Your task to perform on an android device: create a new album in the google photos Image 0: 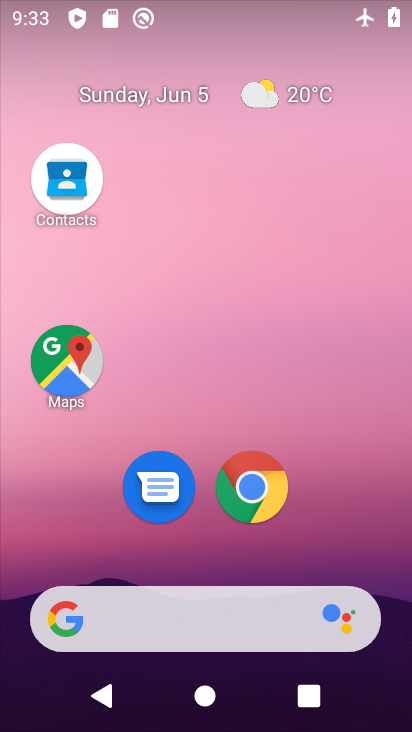
Step 0: drag from (202, 596) to (322, 159)
Your task to perform on an android device: create a new album in the google photos Image 1: 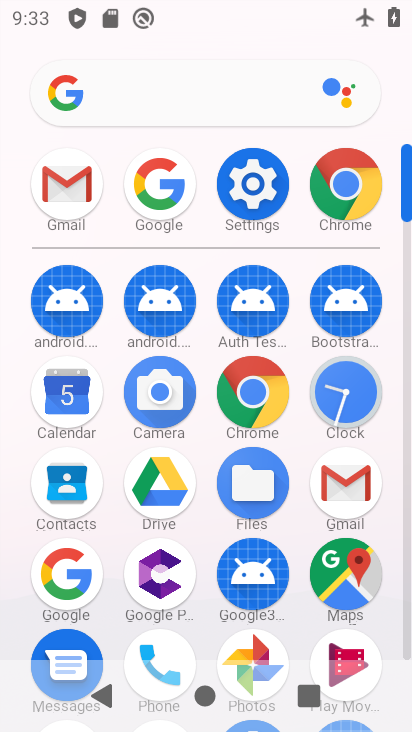
Step 1: drag from (195, 512) to (266, 300)
Your task to perform on an android device: create a new album in the google photos Image 2: 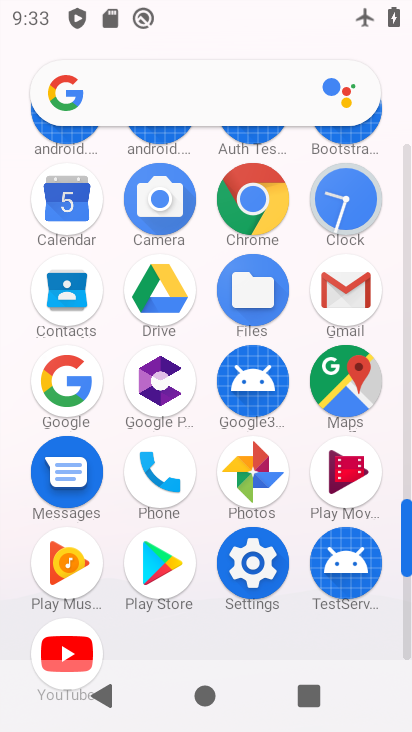
Step 2: click (266, 479)
Your task to perform on an android device: create a new album in the google photos Image 3: 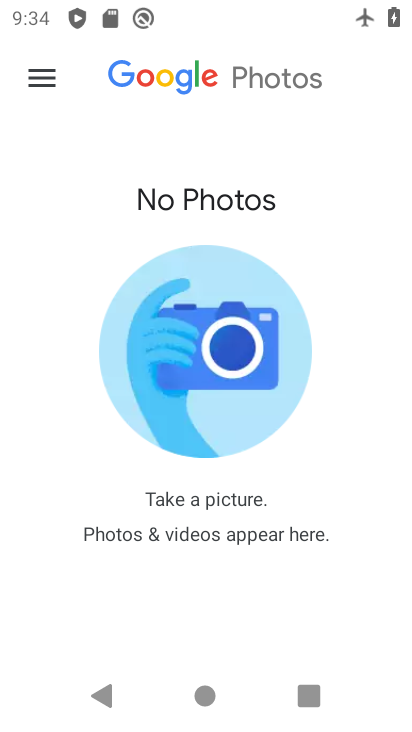
Step 3: click (45, 79)
Your task to perform on an android device: create a new album in the google photos Image 4: 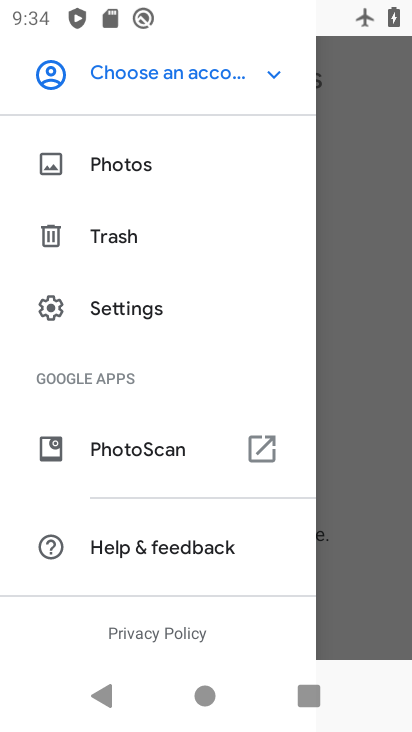
Step 4: click (399, 291)
Your task to perform on an android device: create a new album in the google photos Image 5: 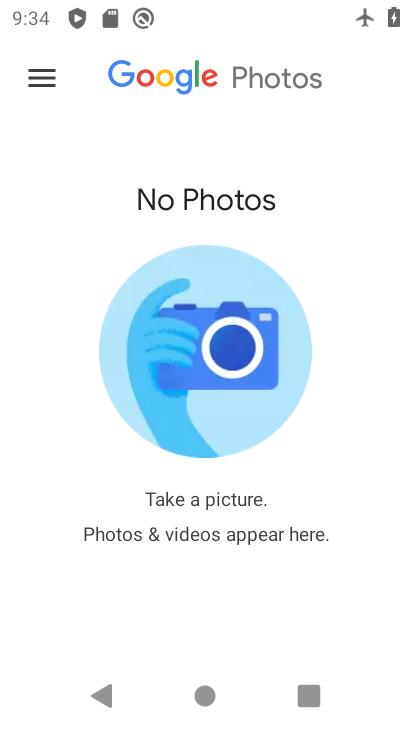
Step 5: click (38, 74)
Your task to perform on an android device: create a new album in the google photos Image 6: 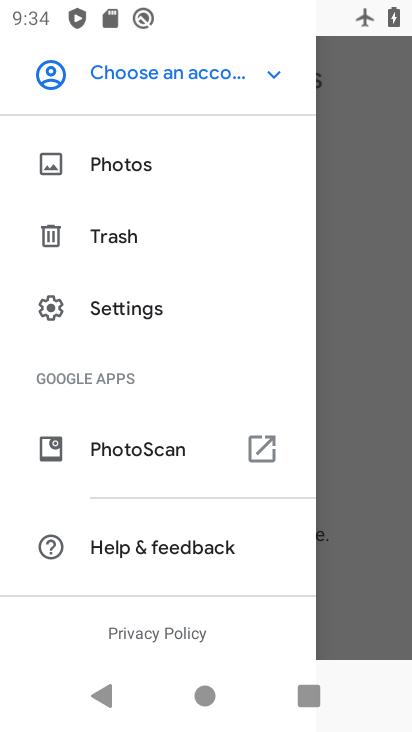
Step 6: click (191, 167)
Your task to perform on an android device: create a new album in the google photos Image 7: 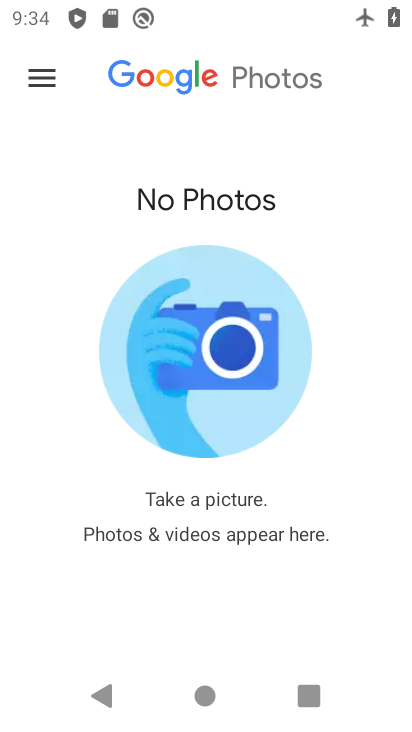
Step 7: click (37, 76)
Your task to perform on an android device: create a new album in the google photos Image 8: 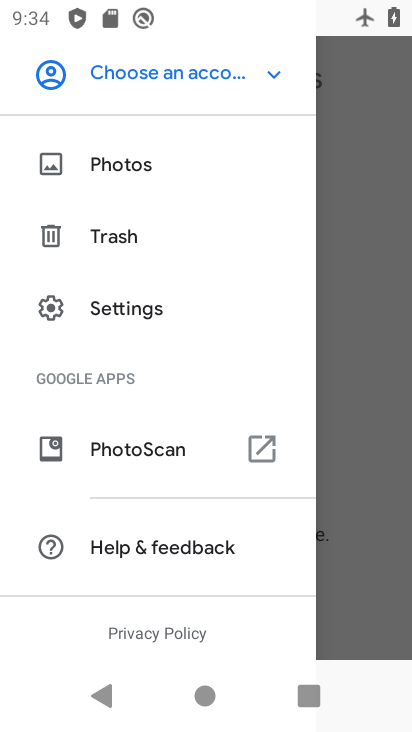
Step 8: task complete